Your task to perform on an android device: Open the Play Movies app and select the watchlist tab. Image 0: 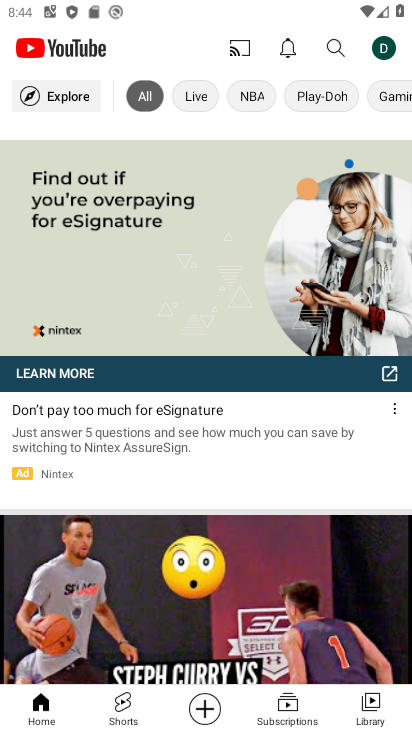
Step 0: press home button
Your task to perform on an android device: Open the Play Movies app and select the watchlist tab. Image 1: 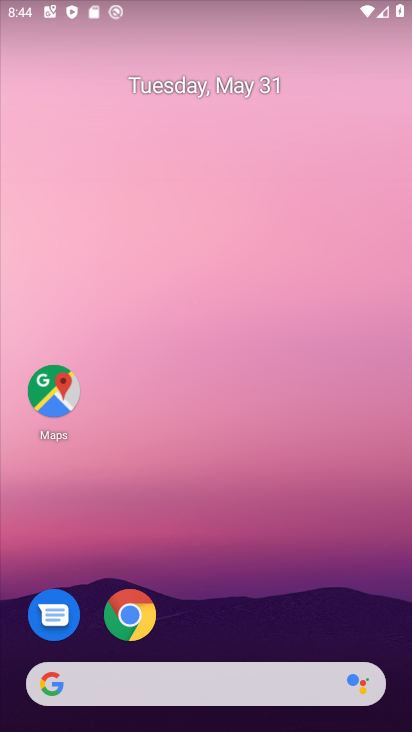
Step 1: drag from (295, 624) to (289, 260)
Your task to perform on an android device: Open the Play Movies app and select the watchlist tab. Image 2: 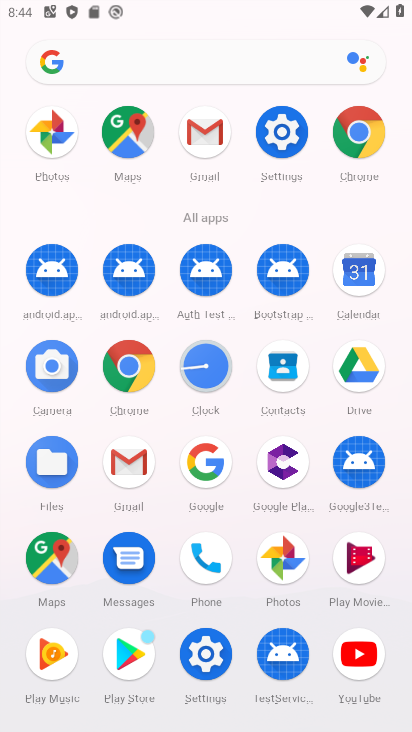
Step 2: click (353, 551)
Your task to perform on an android device: Open the Play Movies app and select the watchlist tab. Image 3: 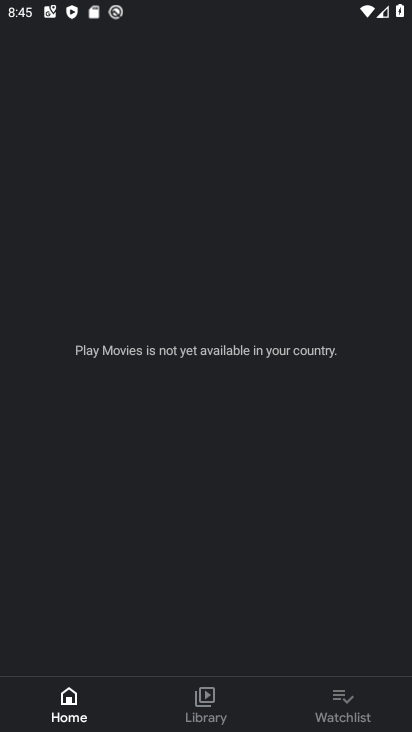
Step 3: click (334, 707)
Your task to perform on an android device: Open the Play Movies app and select the watchlist tab. Image 4: 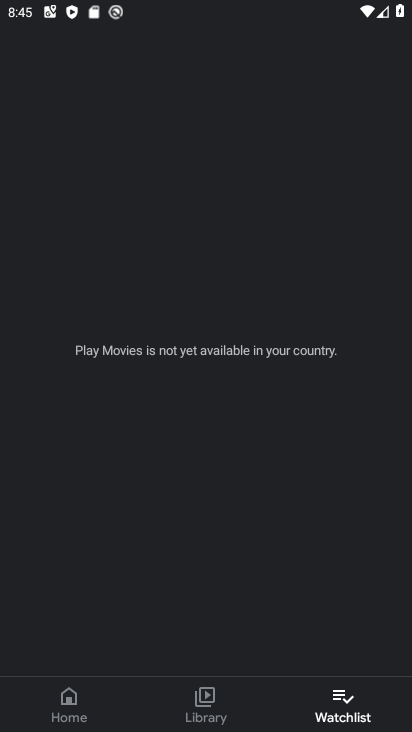
Step 4: task complete